Your task to perform on an android device: refresh tabs in the chrome app Image 0: 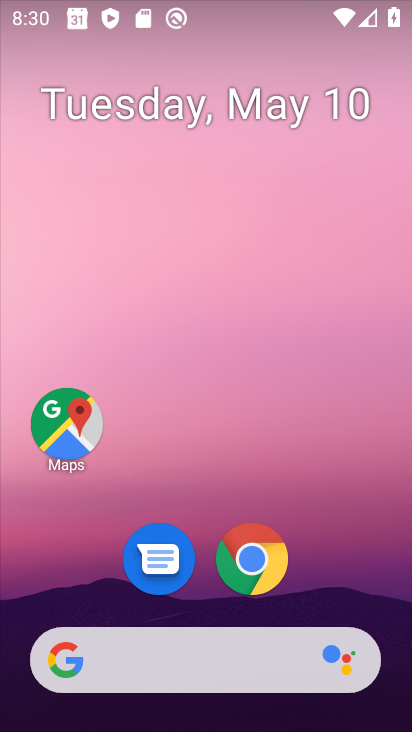
Step 0: drag from (308, 578) to (219, 31)
Your task to perform on an android device: refresh tabs in the chrome app Image 1: 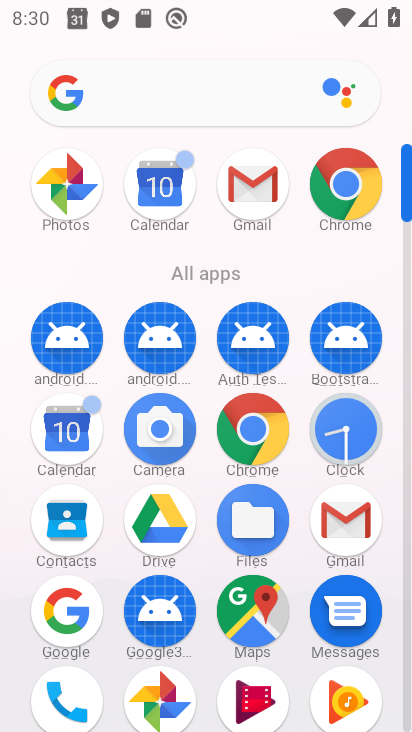
Step 1: click (343, 182)
Your task to perform on an android device: refresh tabs in the chrome app Image 2: 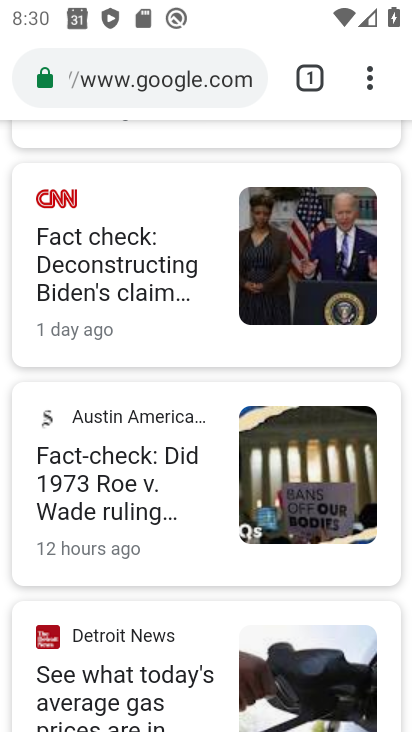
Step 2: click (366, 79)
Your task to perform on an android device: refresh tabs in the chrome app Image 3: 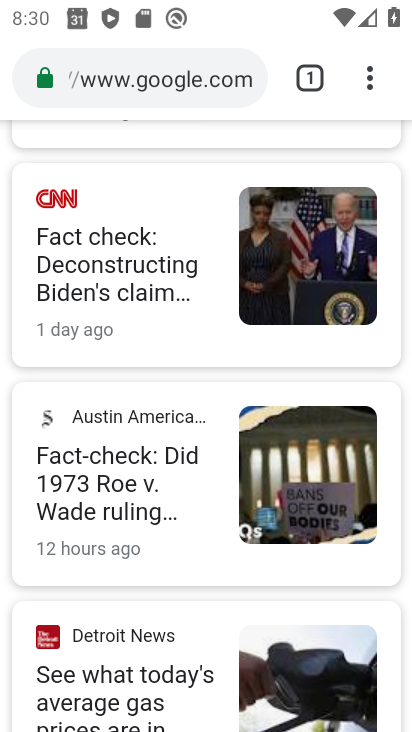
Step 3: task complete